Your task to perform on an android device: change the clock display to analog Image 0: 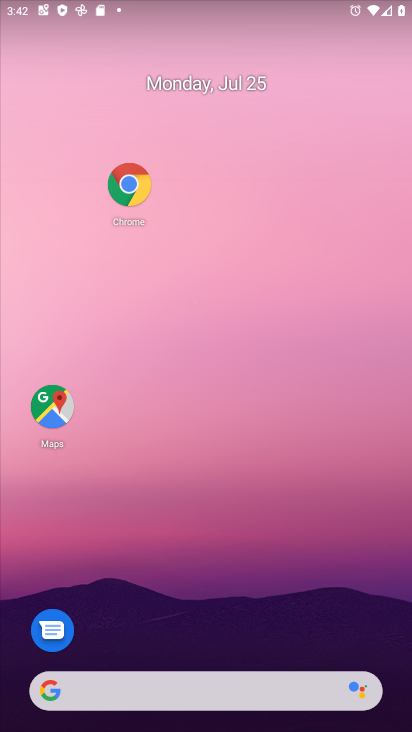
Step 0: drag from (296, 582) to (294, 208)
Your task to perform on an android device: change the clock display to analog Image 1: 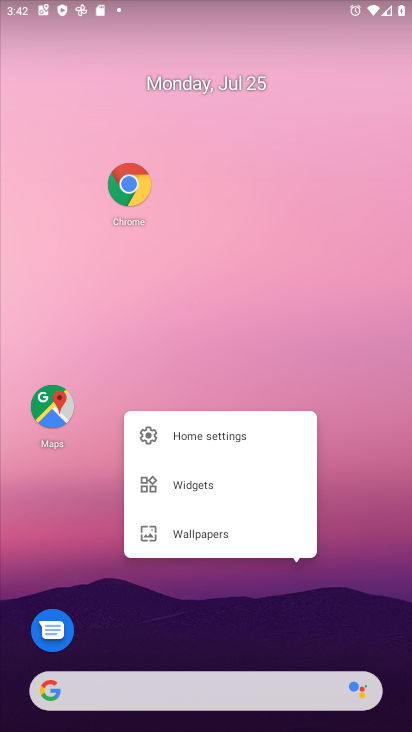
Step 1: click (294, 208)
Your task to perform on an android device: change the clock display to analog Image 2: 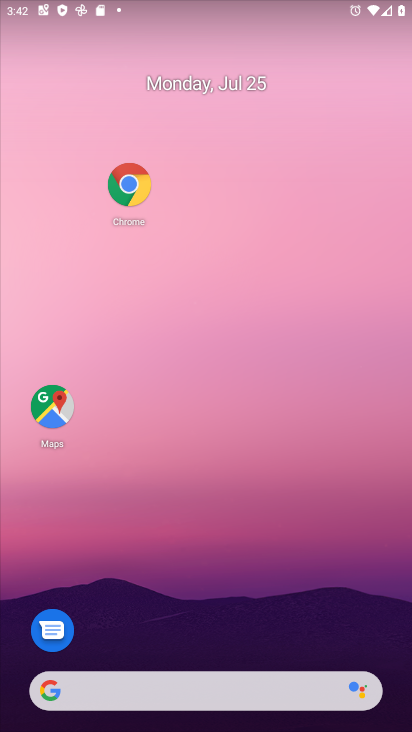
Step 2: drag from (272, 596) to (209, 50)
Your task to perform on an android device: change the clock display to analog Image 3: 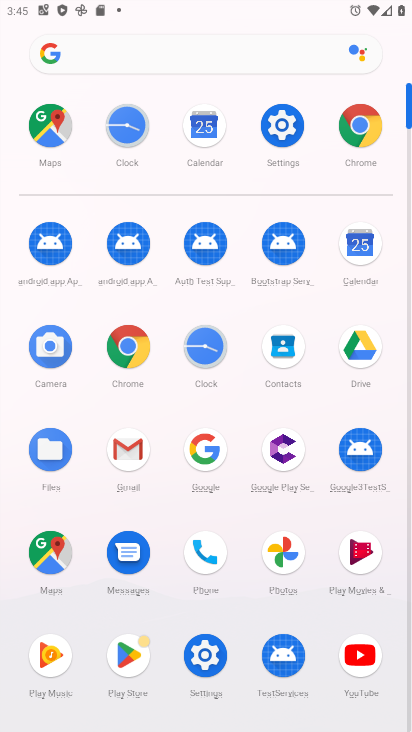
Step 3: click (268, 144)
Your task to perform on an android device: change the clock display to analog Image 4: 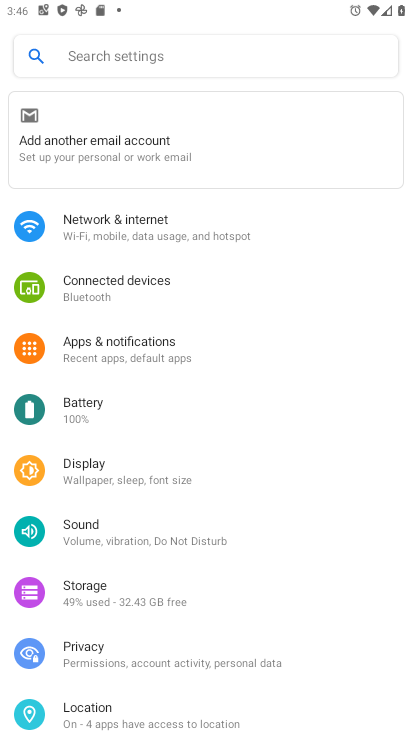
Step 4: task complete